Your task to perform on an android device: Is it going to rain this weekend? Image 0: 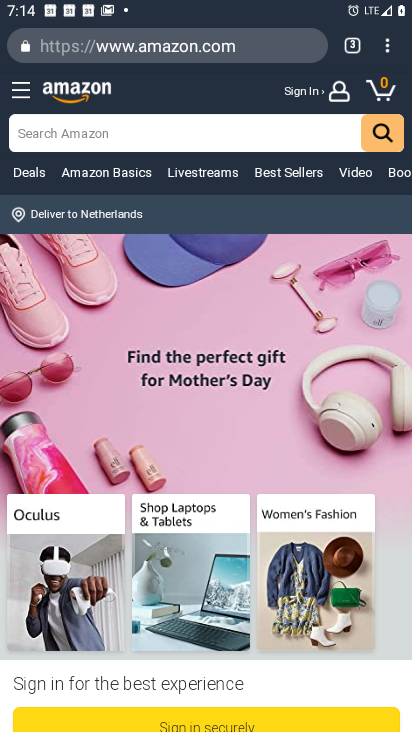
Step 0: press home button
Your task to perform on an android device: Is it going to rain this weekend? Image 1: 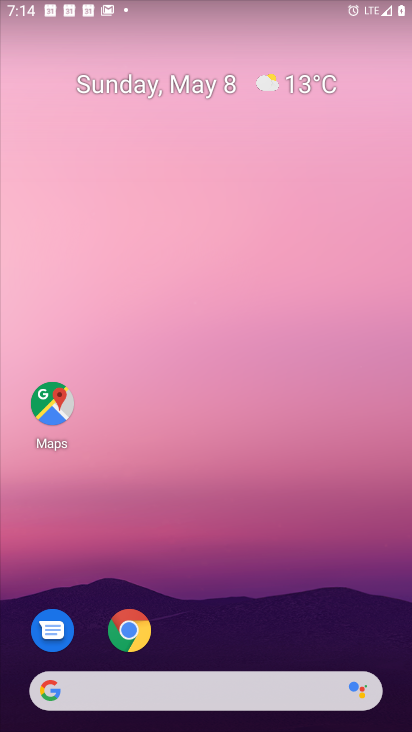
Step 1: click (298, 87)
Your task to perform on an android device: Is it going to rain this weekend? Image 2: 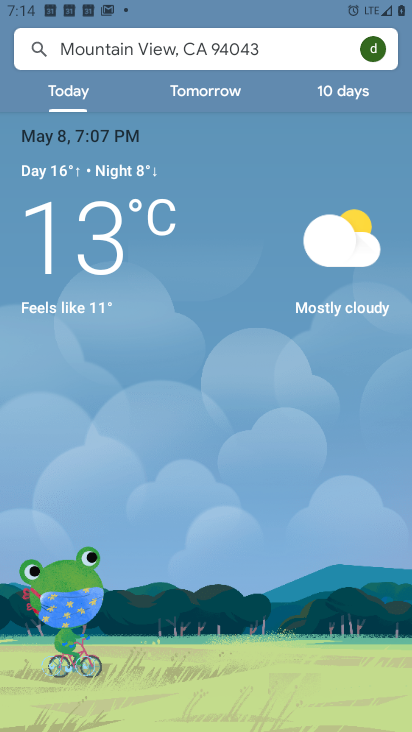
Step 2: click (341, 88)
Your task to perform on an android device: Is it going to rain this weekend? Image 3: 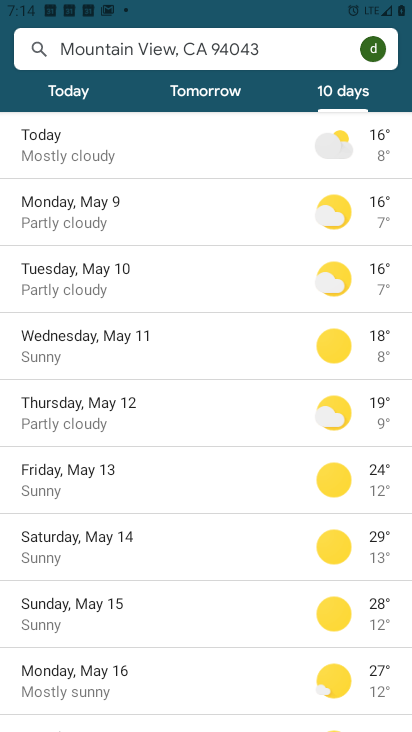
Step 3: task complete